Your task to perform on an android device: toggle notifications settings in the gmail app Image 0: 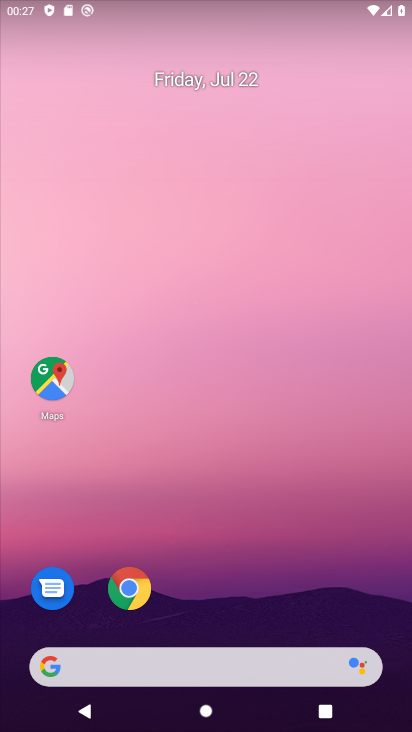
Step 0: drag from (215, 630) to (295, 15)
Your task to perform on an android device: toggle notifications settings in the gmail app Image 1: 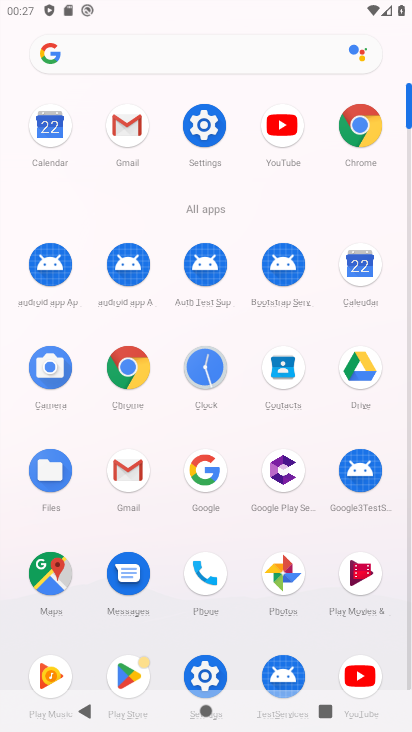
Step 1: click (126, 130)
Your task to perform on an android device: toggle notifications settings in the gmail app Image 2: 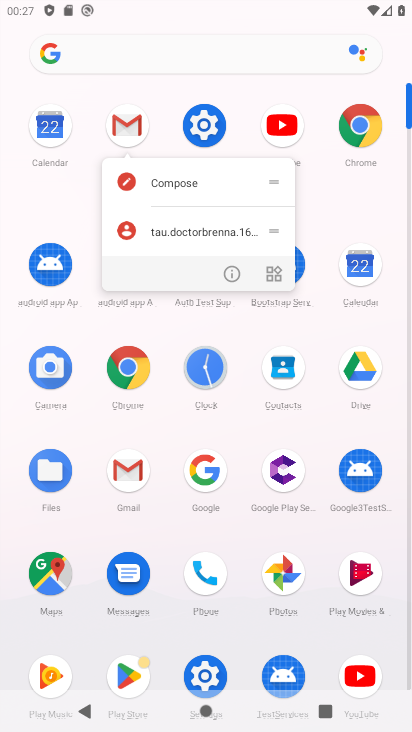
Step 2: click (237, 267)
Your task to perform on an android device: toggle notifications settings in the gmail app Image 3: 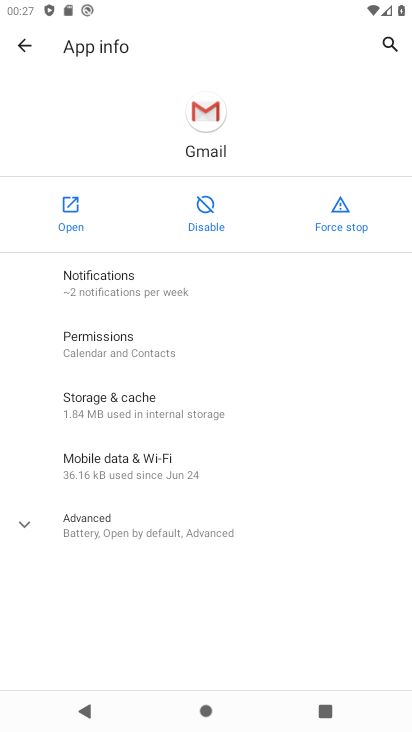
Step 3: click (103, 285)
Your task to perform on an android device: toggle notifications settings in the gmail app Image 4: 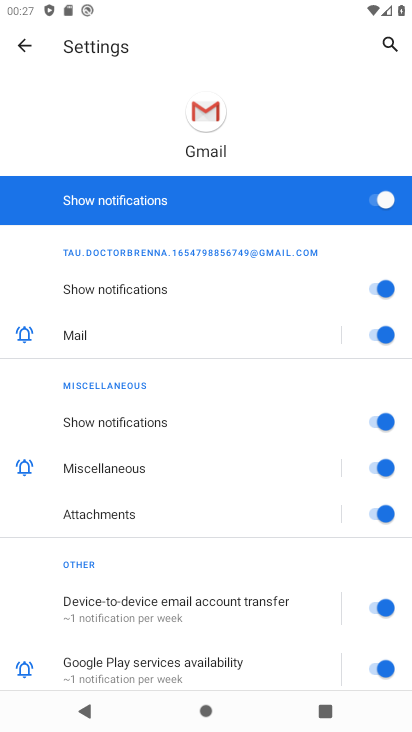
Step 4: click (384, 205)
Your task to perform on an android device: toggle notifications settings in the gmail app Image 5: 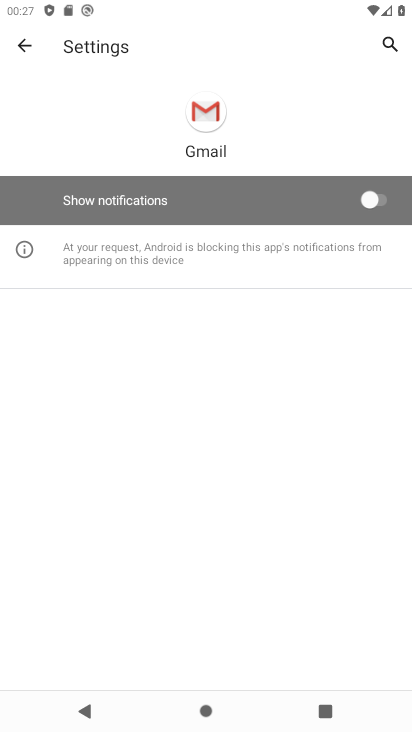
Step 5: task complete